Your task to perform on an android device: turn off location history Image 0: 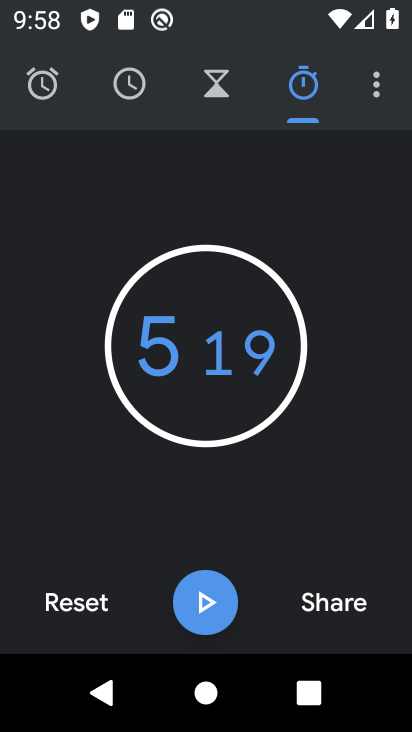
Step 0: press home button
Your task to perform on an android device: turn off location history Image 1: 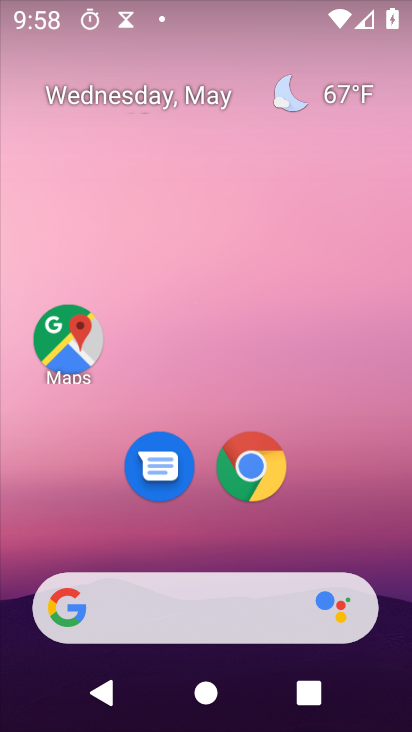
Step 1: drag from (200, 523) to (208, 122)
Your task to perform on an android device: turn off location history Image 2: 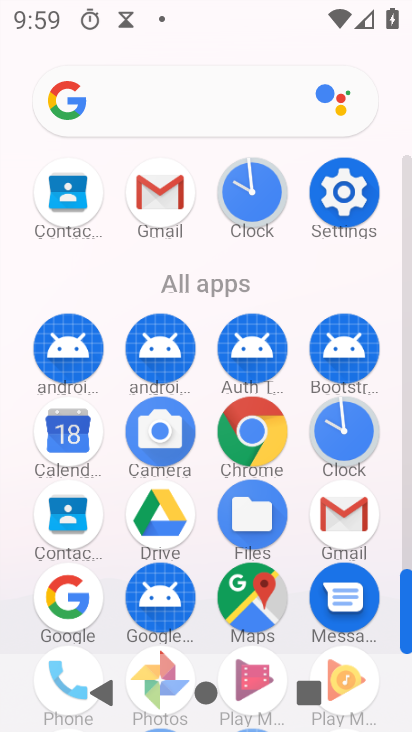
Step 2: click (362, 203)
Your task to perform on an android device: turn off location history Image 3: 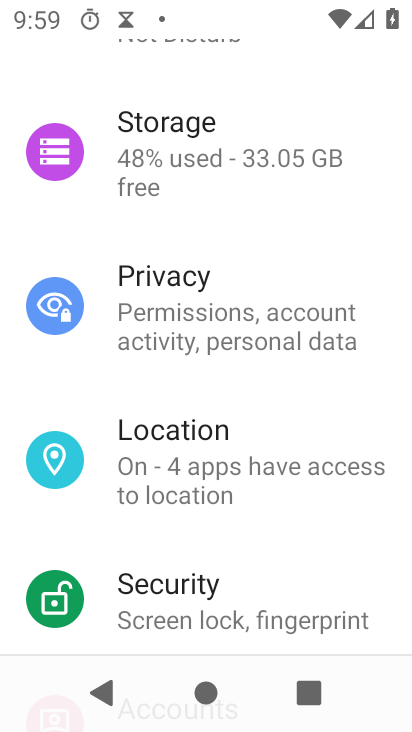
Step 3: drag from (262, 139) to (251, 422)
Your task to perform on an android device: turn off location history Image 4: 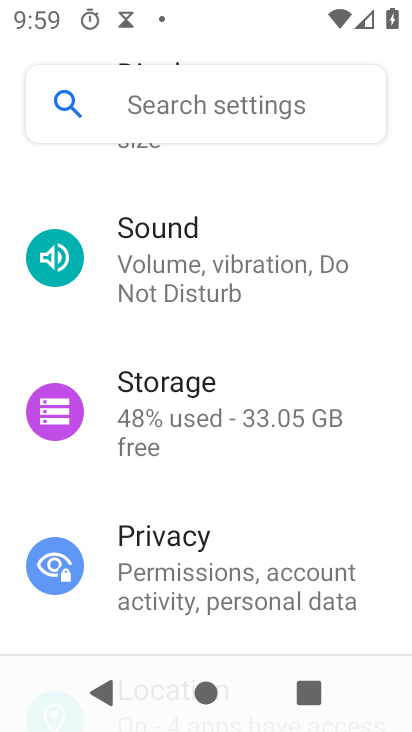
Step 4: drag from (204, 562) to (203, 270)
Your task to perform on an android device: turn off location history Image 5: 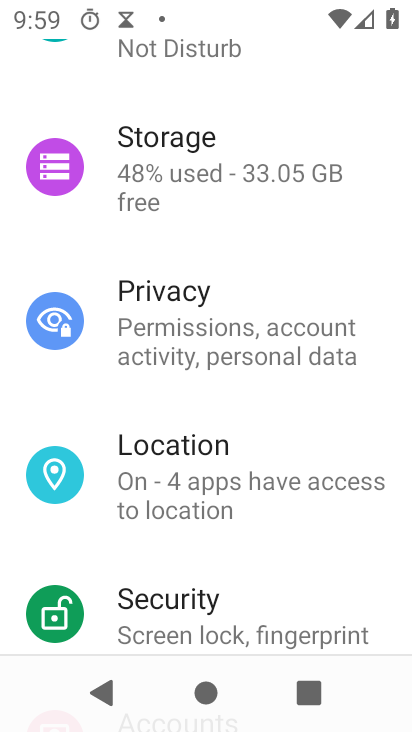
Step 5: click (179, 461)
Your task to perform on an android device: turn off location history Image 6: 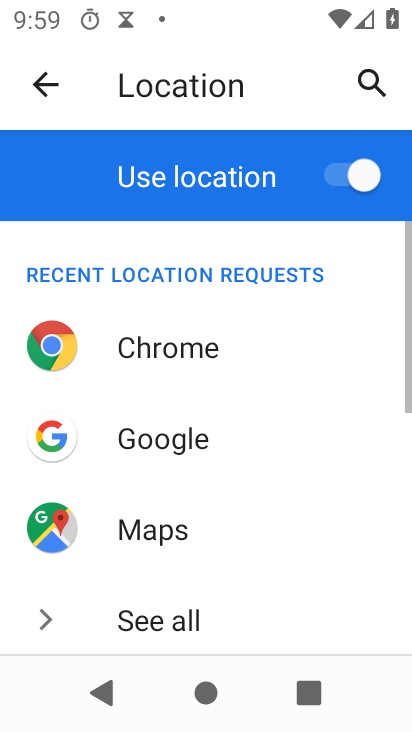
Step 6: drag from (197, 506) to (183, 252)
Your task to perform on an android device: turn off location history Image 7: 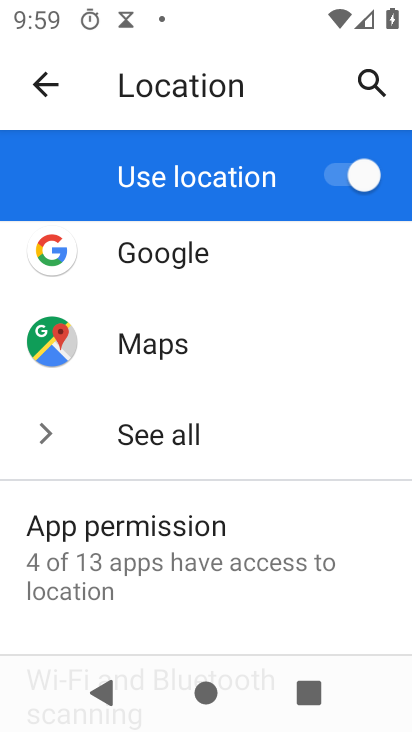
Step 7: drag from (159, 610) to (172, 306)
Your task to perform on an android device: turn off location history Image 8: 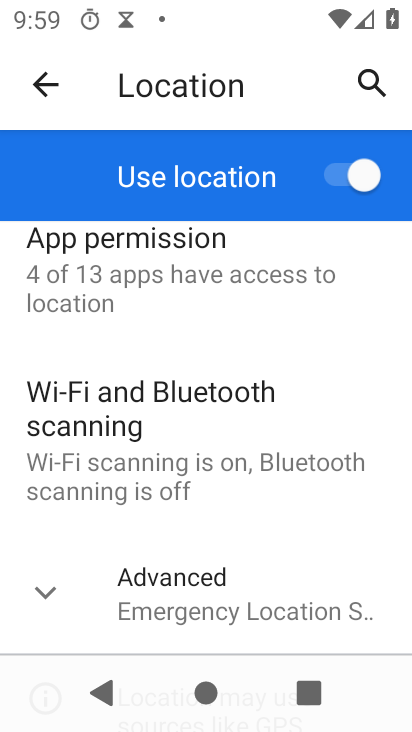
Step 8: click (175, 618)
Your task to perform on an android device: turn off location history Image 9: 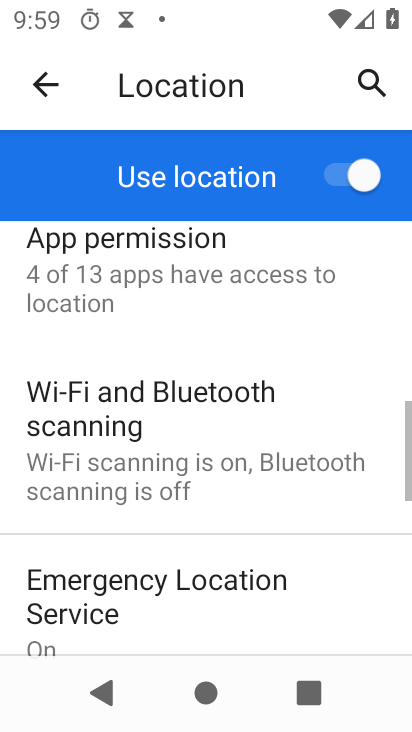
Step 9: drag from (194, 634) to (183, 367)
Your task to perform on an android device: turn off location history Image 10: 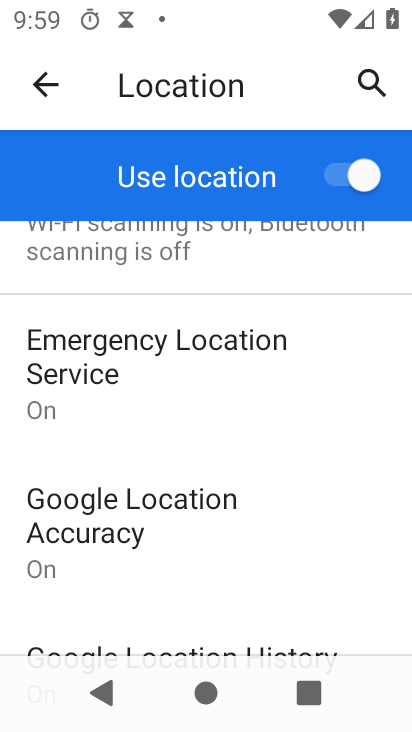
Step 10: click (121, 533)
Your task to perform on an android device: turn off location history Image 11: 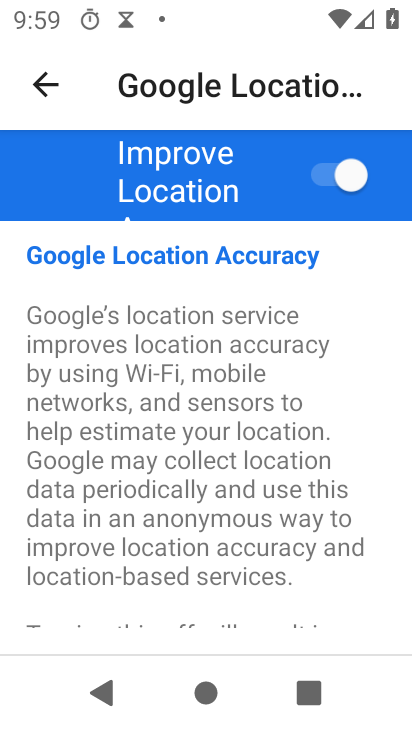
Step 11: click (52, 95)
Your task to perform on an android device: turn off location history Image 12: 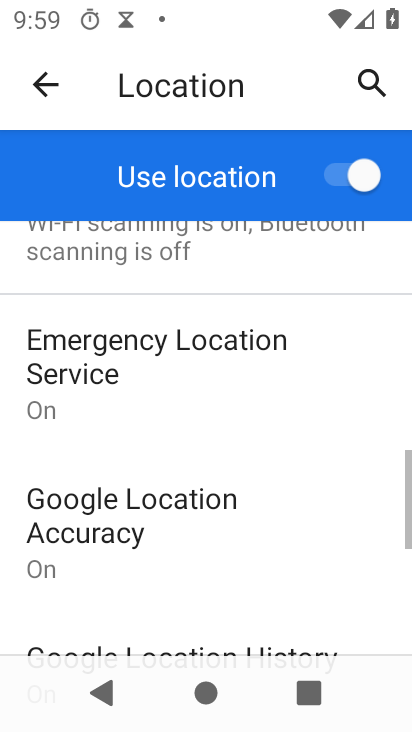
Step 12: drag from (194, 581) to (188, 415)
Your task to perform on an android device: turn off location history Image 13: 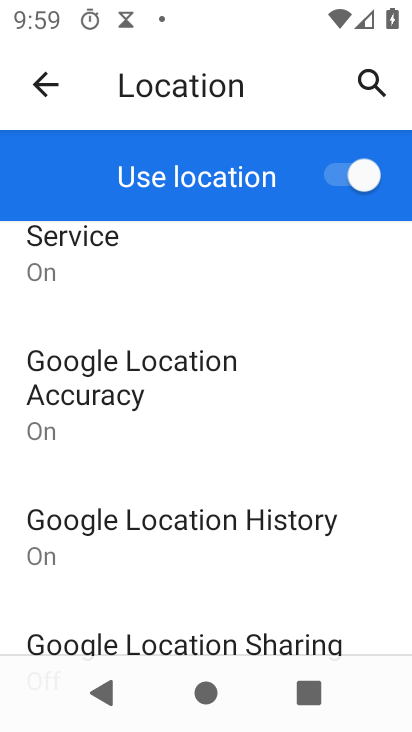
Step 13: click (167, 526)
Your task to perform on an android device: turn off location history Image 14: 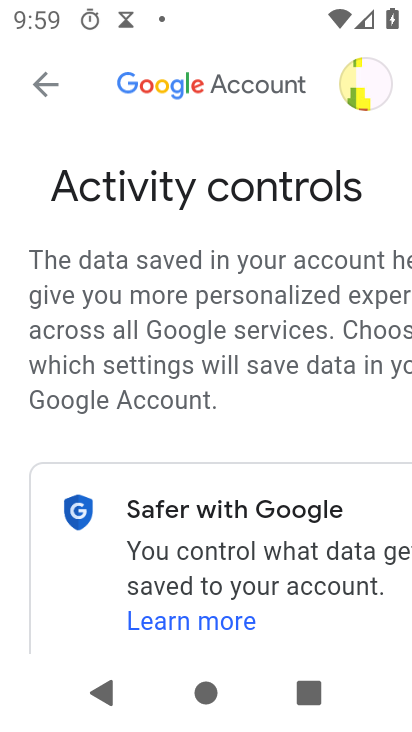
Step 14: drag from (192, 571) to (145, 262)
Your task to perform on an android device: turn off location history Image 15: 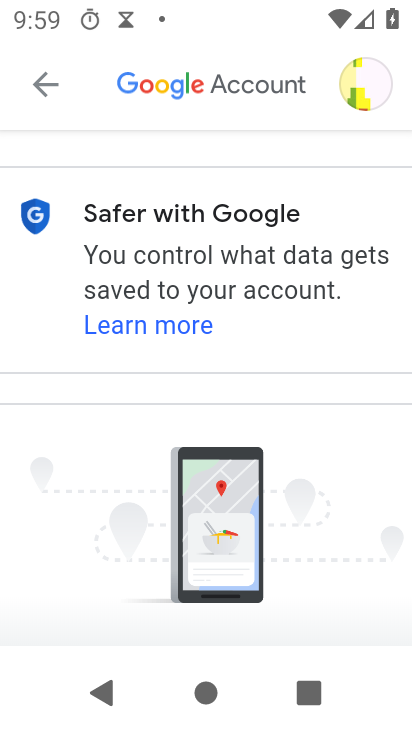
Step 15: drag from (245, 569) to (224, 254)
Your task to perform on an android device: turn off location history Image 16: 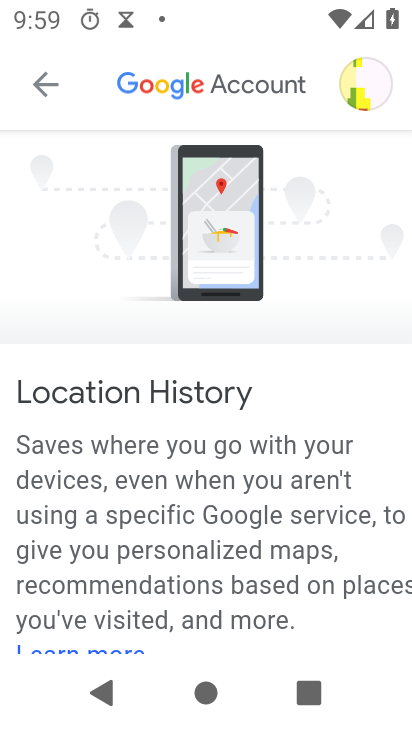
Step 16: drag from (215, 586) to (209, 194)
Your task to perform on an android device: turn off location history Image 17: 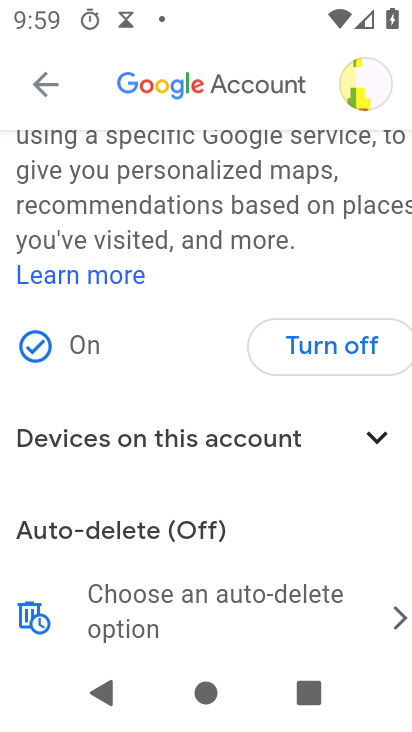
Step 17: click (301, 350)
Your task to perform on an android device: turn off location history Image 18: 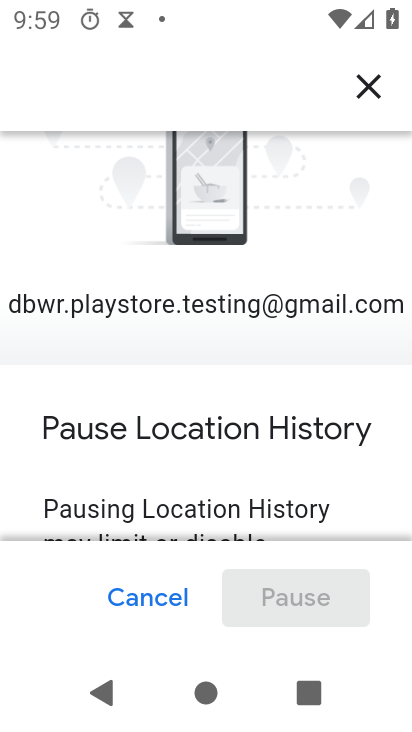
Step 18: drag from (235, 513) to (226, 182)
Your task to perform on an android device: turn off location history Image 19: 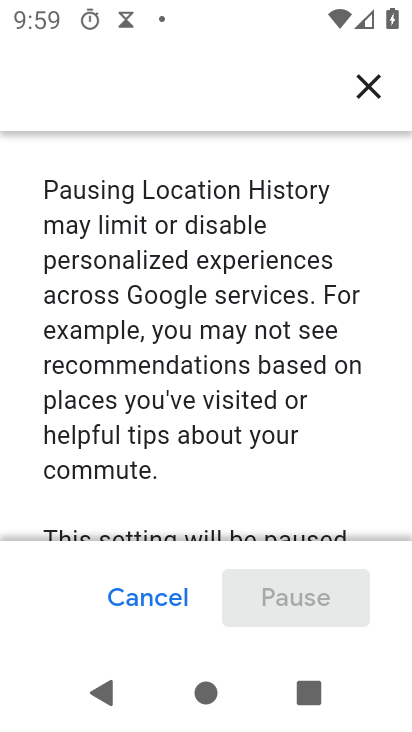
Step 19: drag from (233, 464) to (248, 22)
Your task to perform on an android device: turn off location history Image 20: 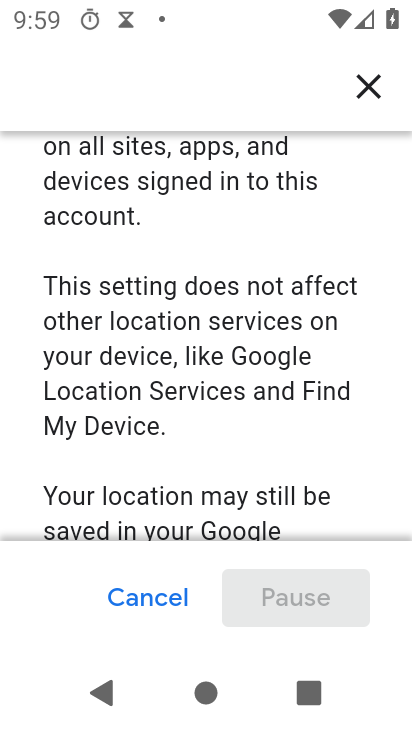
Step 20: drag from (225, 532) to (211, 91)
Your task to perform on an android device: turn off location history Image 21: 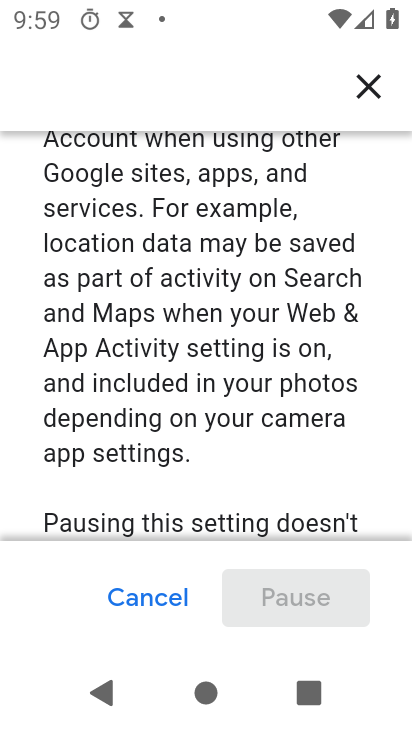
Step 21: drag from (210, 437) to (241, 63)
Your task to perform on an android device: turn off location history Image 22: 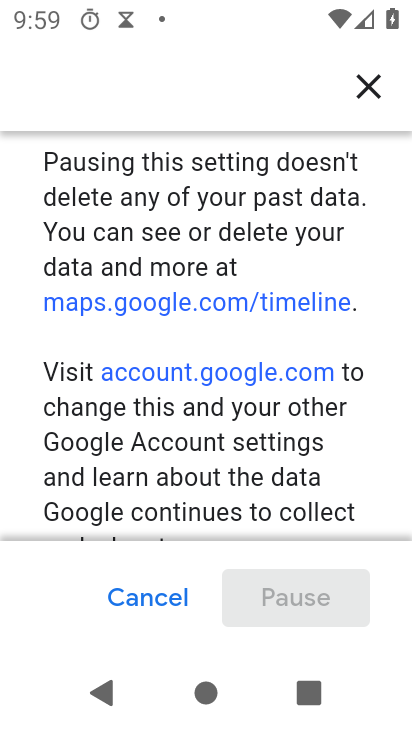
Step 22: drag from (193, 527) to (201, 57)
Your task to perform on an android device: turn off location history Image 23: 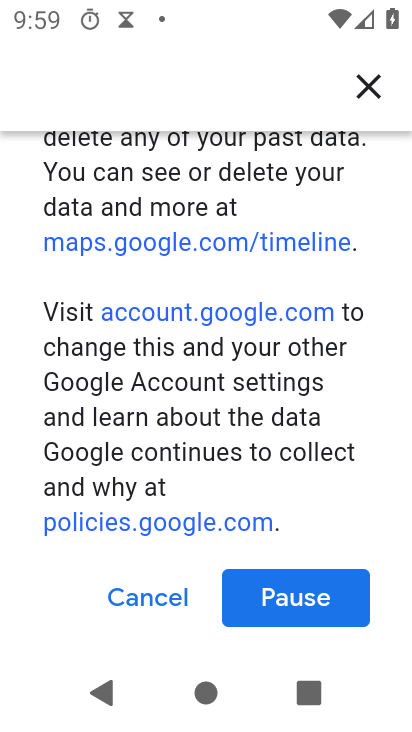
Step 23: click (283, 613)
Your task to perform on an android device: turn off location history Image 24: 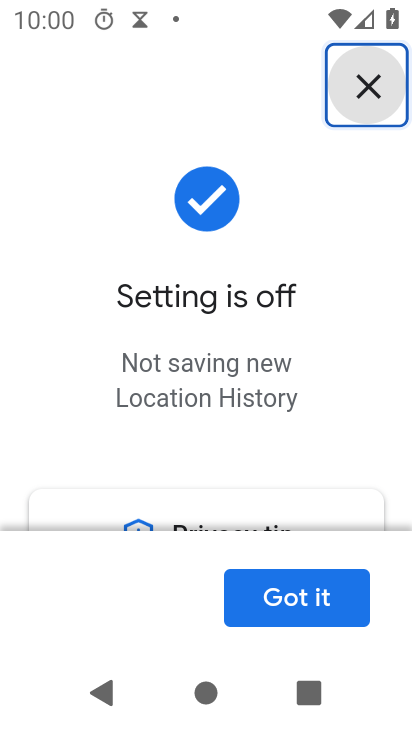
Step 24: click (285, 606)
Your task to perform on an android device: turn off location history Image 25: 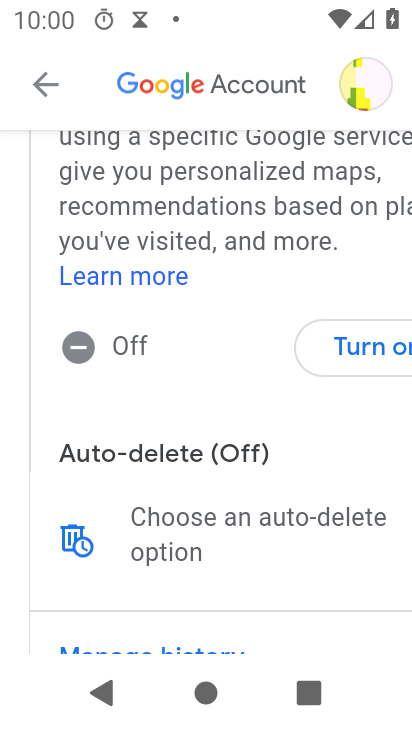
Step 25: task complete